Your task to perform on an android device: View the shopping cart on costco.com. Image 0: 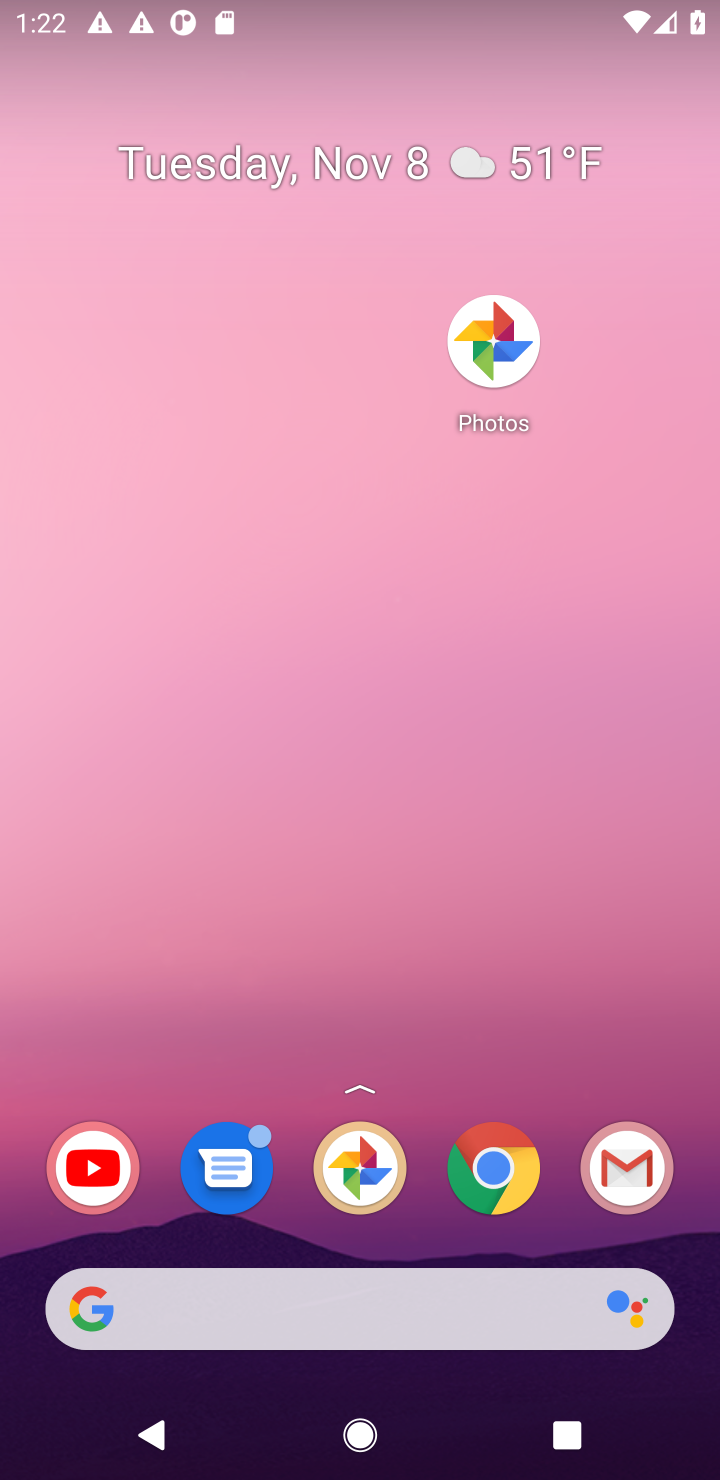
Step 0: drag from (546, 866) to (531, 320)
Your task to perform on an android device: View the shopping cart on costco.com. Image 1: 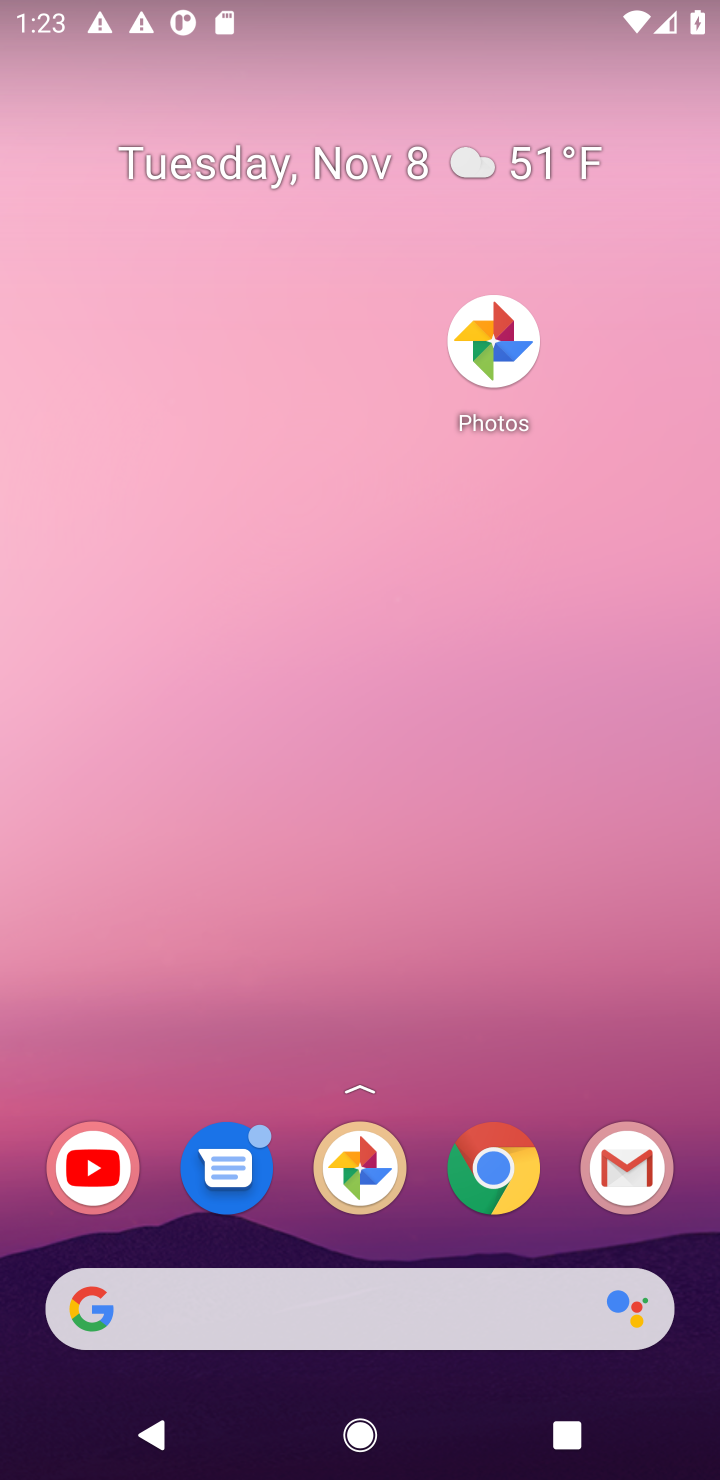
Step 1: drag from (439, 848) to (581, 240)
Your task to perform on an android device: View the shopping cart on costco.com. Image 2: 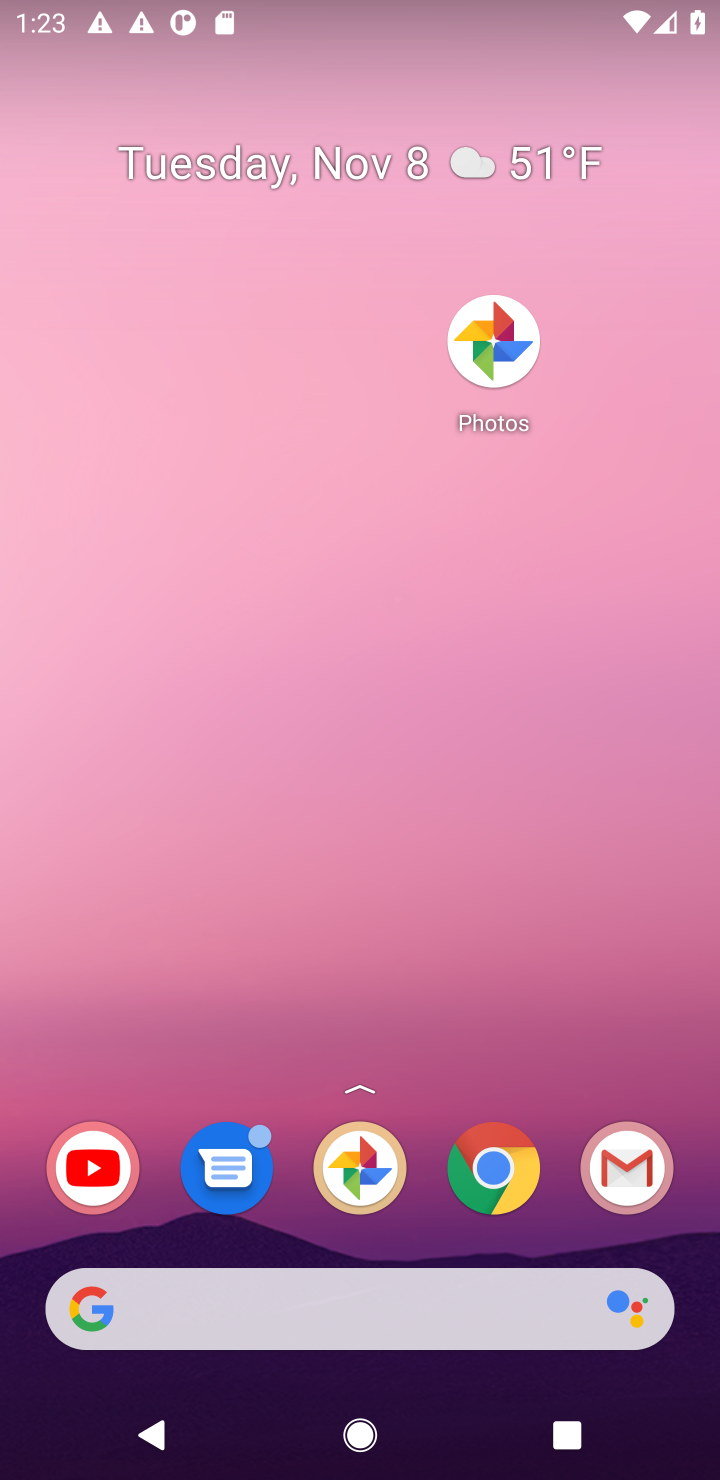
Step 2: click (496, 1179)
Your task to perform on an android device: View the shopping cart on costco.com. Image 3: 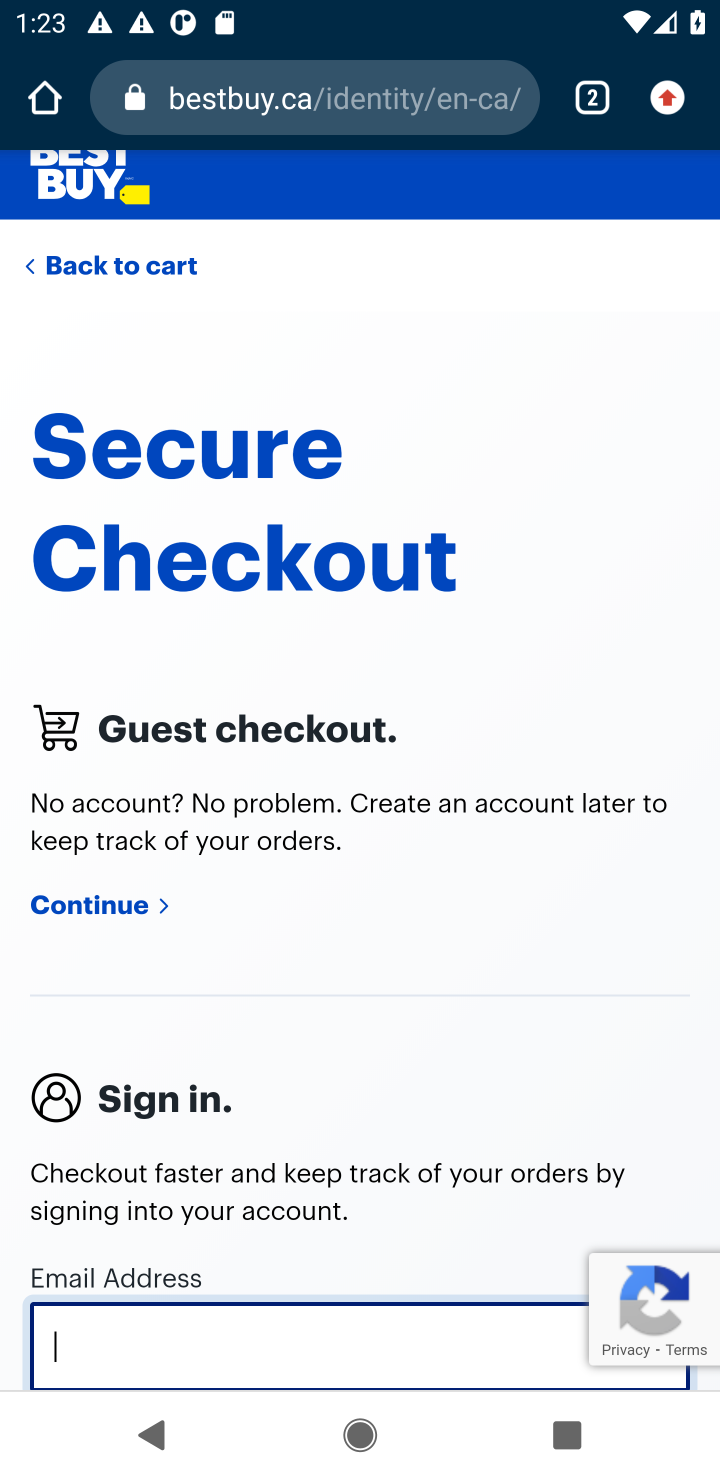
Step 3: click (240, 105)
Your task to perform on an android device: View the shopping cart on costco.com. Image 4: 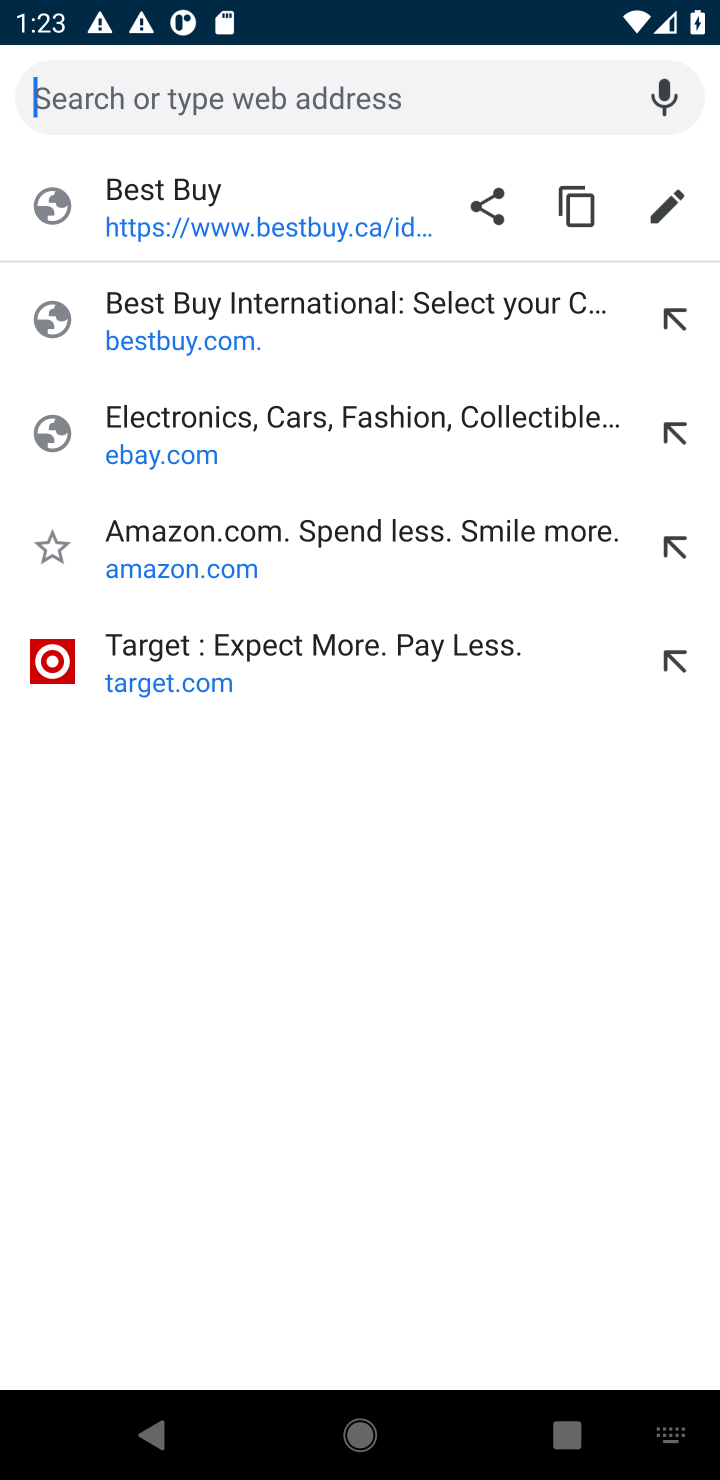
Step 4: type "costco.com."
Your task to perform on an android device: View the shopping cart on costco.com. Image 5: 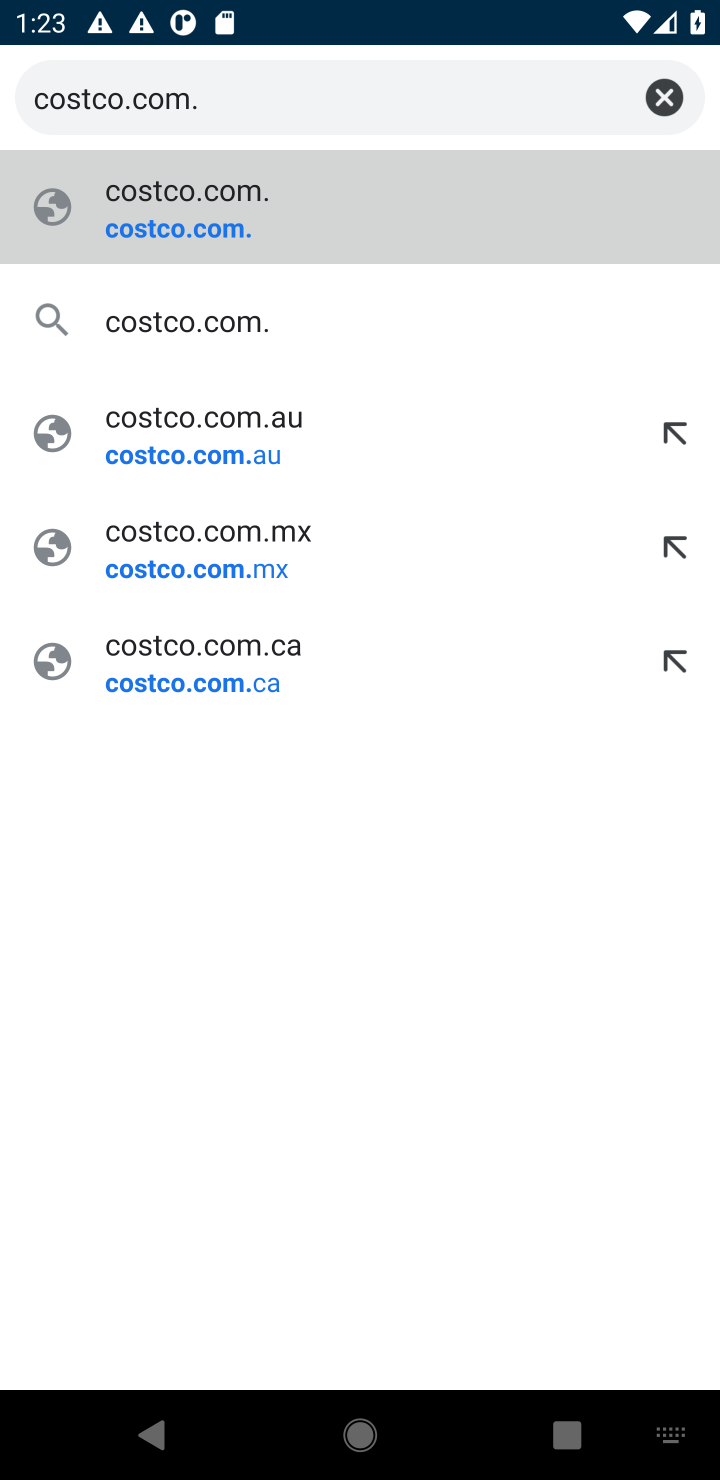
Step 5: press enter
Your task to perform on an android device: View the shopping cart on costco.com. Image 6: 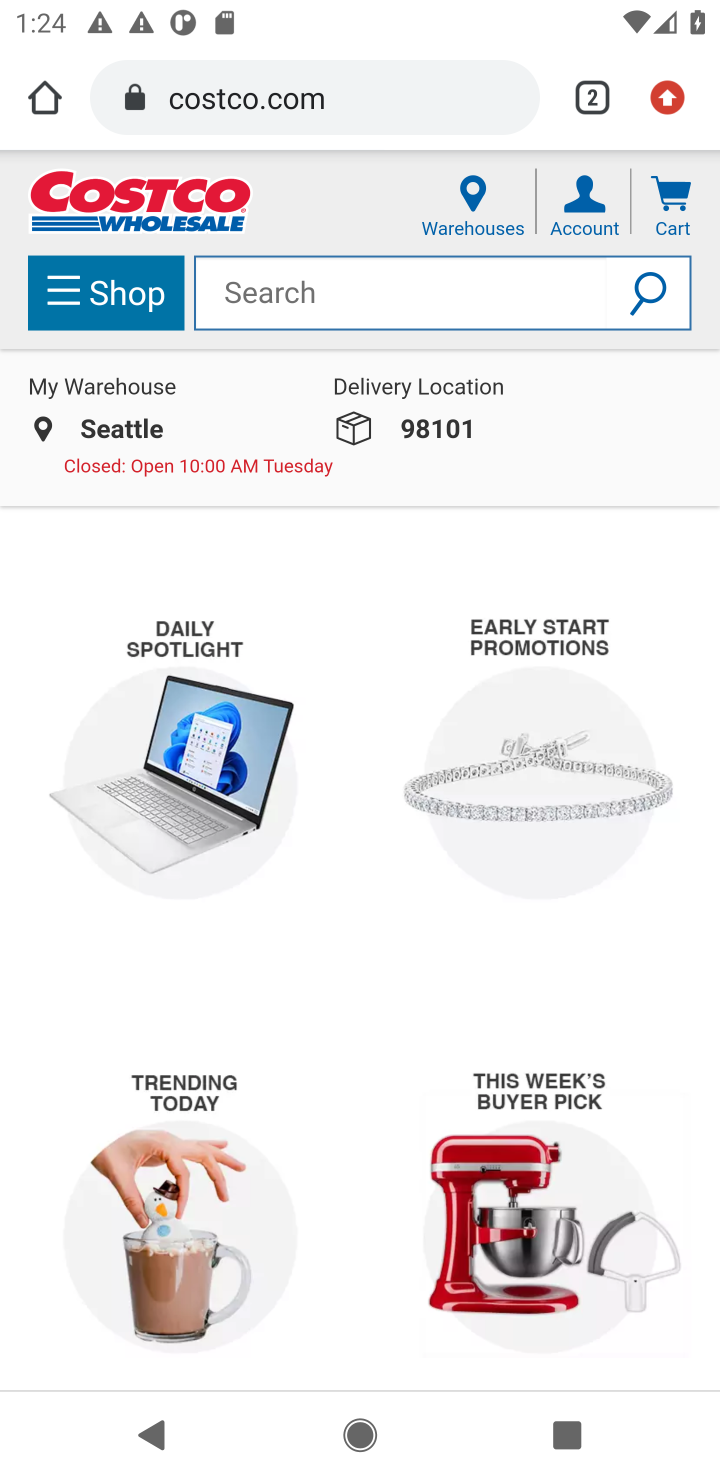
Step 6: click (662, 196)
Your task to perform on an android device: View the shopping cart on costco.com. Image 7: 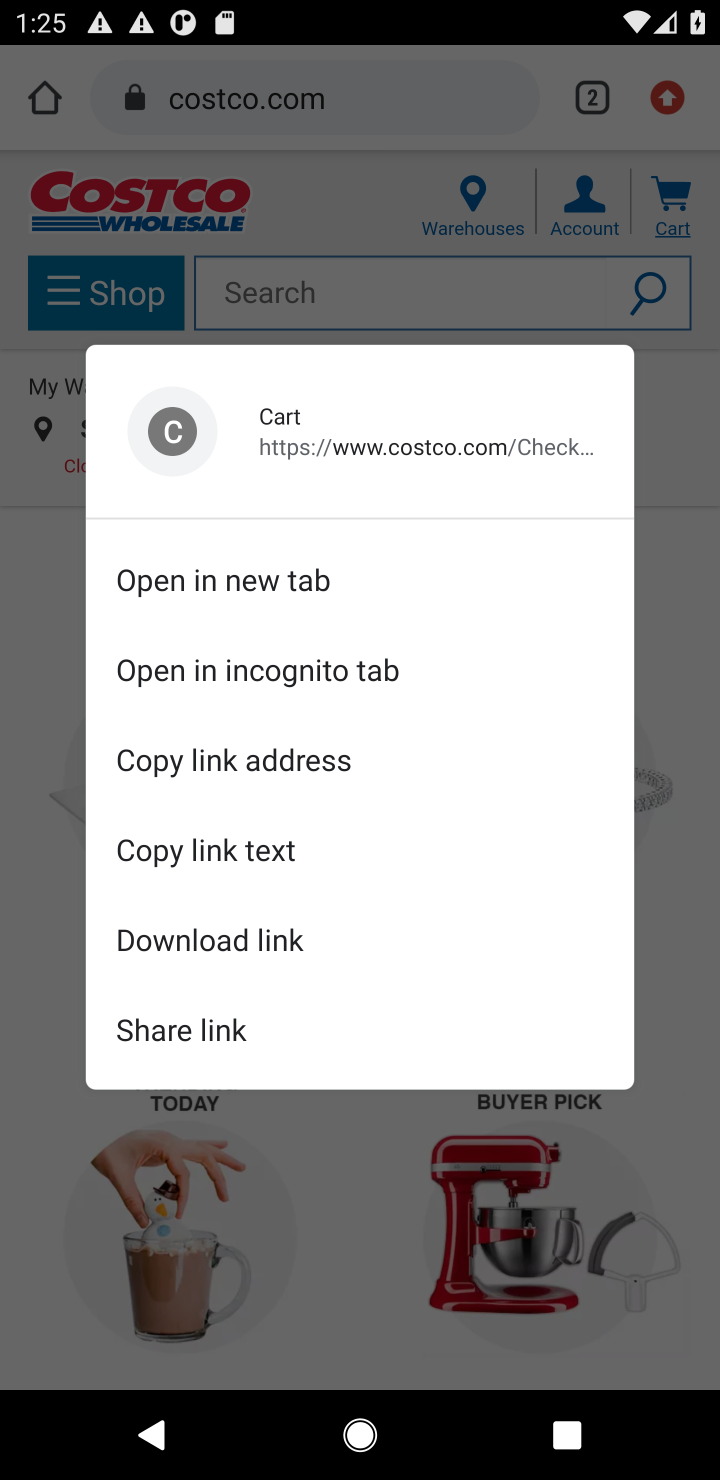
Step 7: click (313, 581)
Your task to perform on an android device: View the shopping cart on costco.com. Image 8: 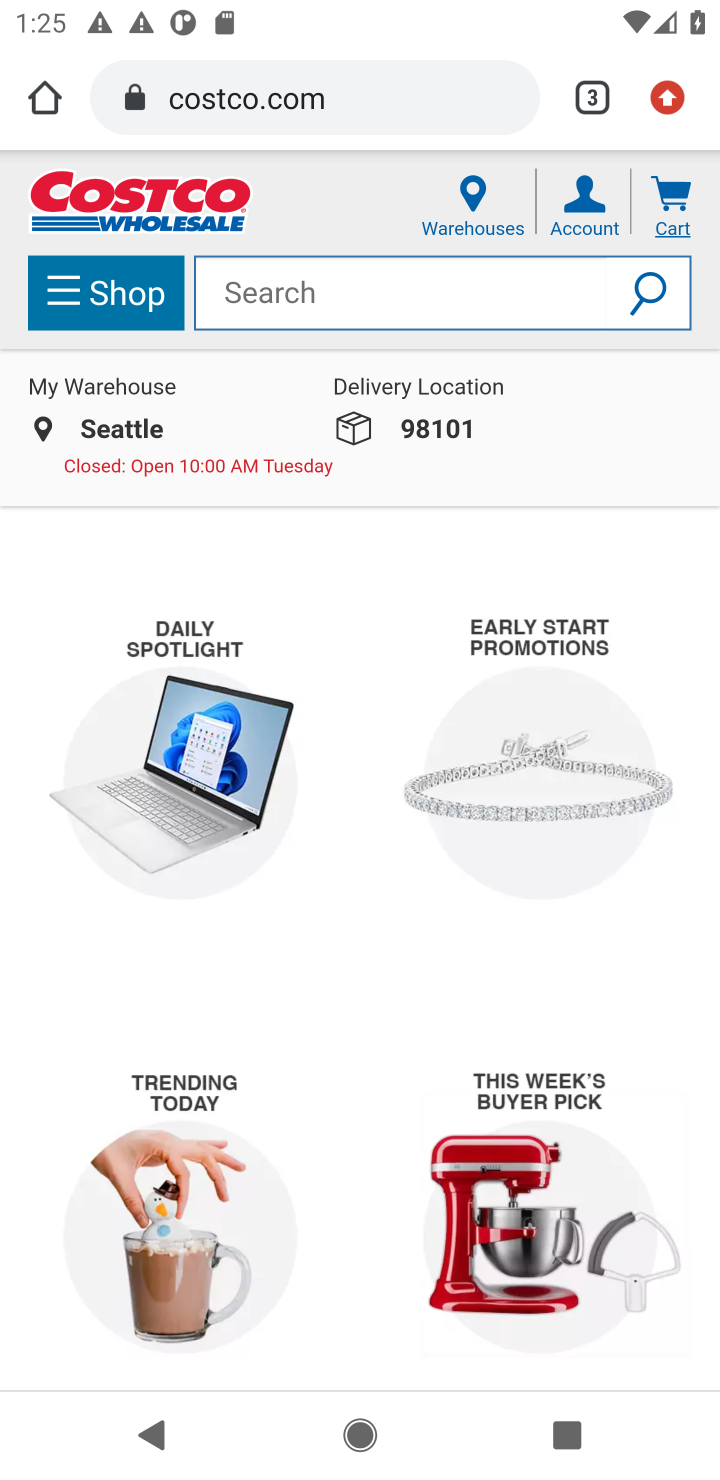
Step 8: task complete